Your task to perform on an android device: Open the stopwatch Image 0: 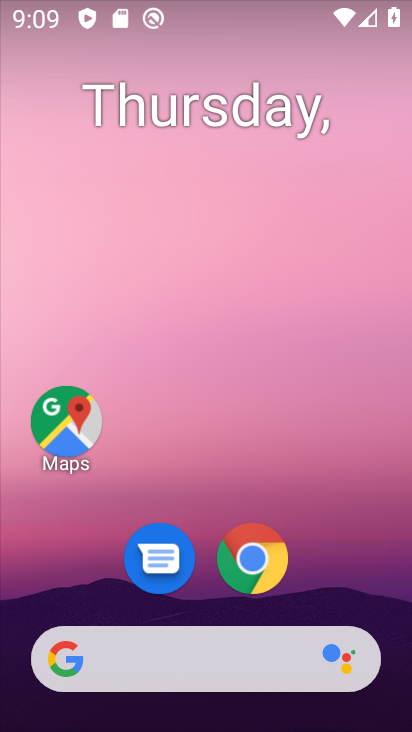
Step 0: drag from (398, 635) to (313, 99)
Your task to perform on an android device: Open the stopwatch Image 1: 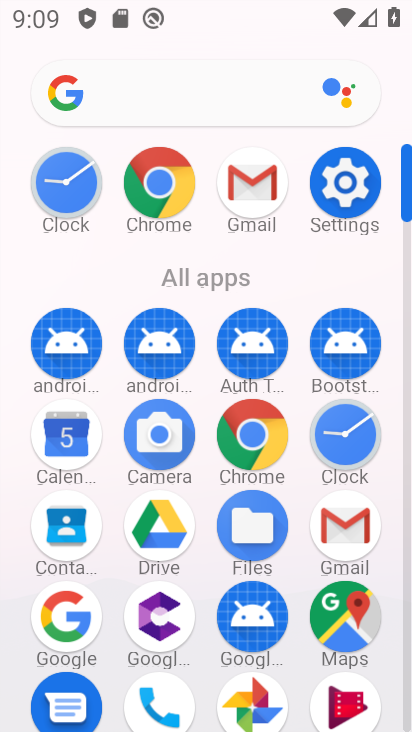
Step 1: click (406, 708)
Your task to perform on an android device: Open the stopwatch Image 2: 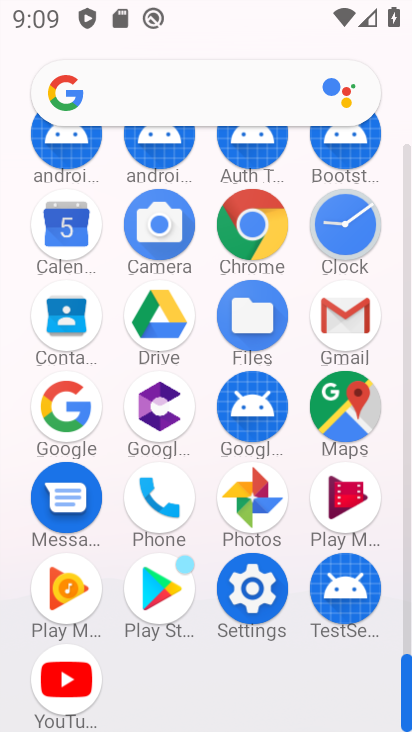
Step 2: click (342, 219)
Your task to perform on an android device: Open the stopwatch Image 3: 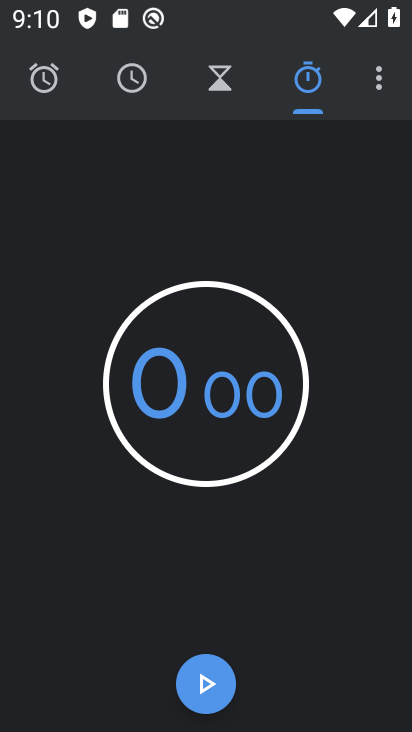
Step 3: task complete